Your task to perform on an android device: change the clock display to analog Image 0: 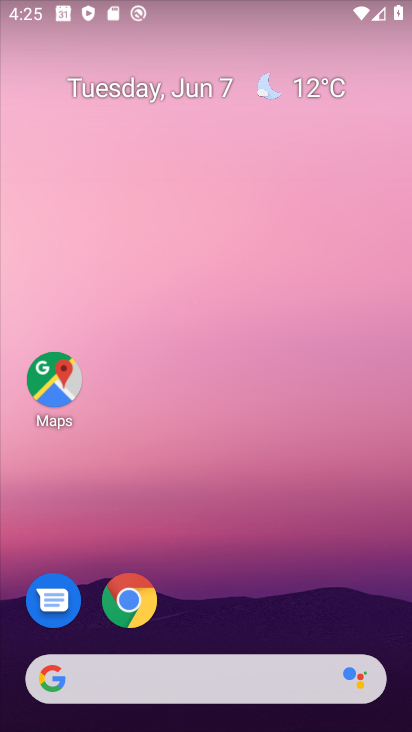
Step 0: drag from (190, 595) to (162, 279)
Your task to perform on an android device: change the clock display to analog Image 1: 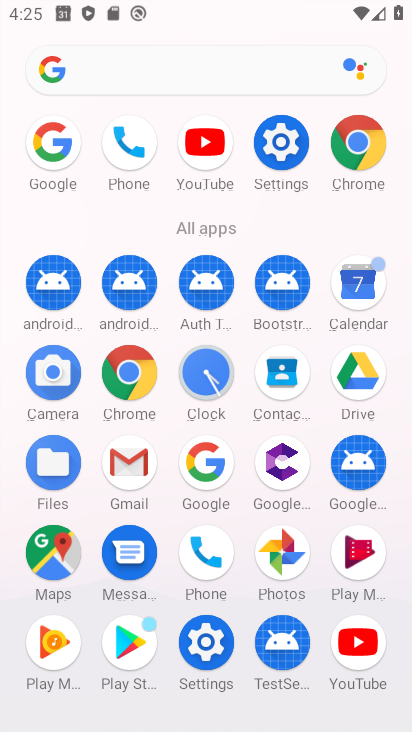
Step 1: click (193, 392)
Your task to perform on an android device: change the clock display to analog Image 2: 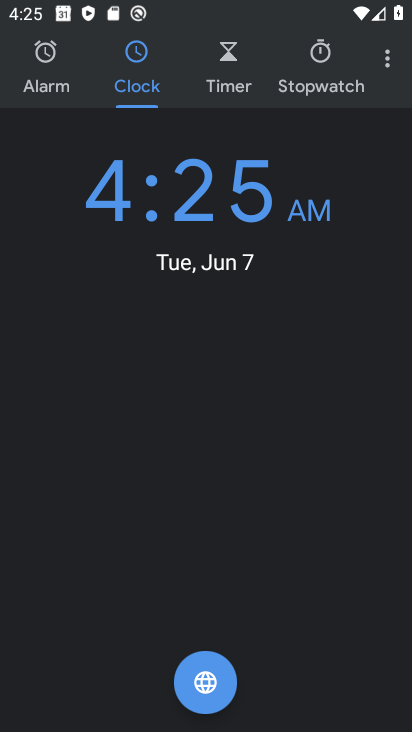
Step 2: click (386, 65)
Your task to perform on an android device: change the clock display to analog Image 3: 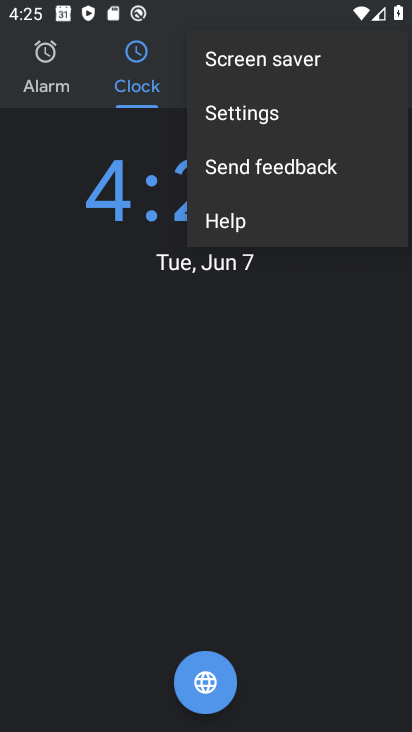
Step 3: click (224, 114)
Your task to perform on an android device: change the clock display to analog Image 4: 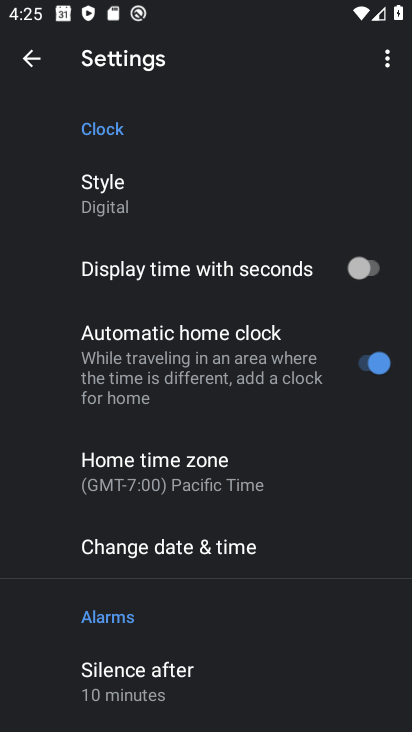
Step 4: click (120, 199)
Your task to perform on an android device: change the clock display to analog Image 5: 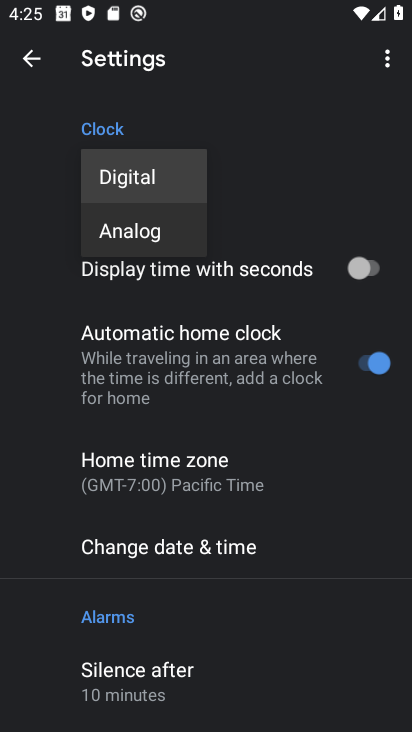
Step 5: click (175, 232)
Your task to perform on an android device: change the clock display to analog Image 6: 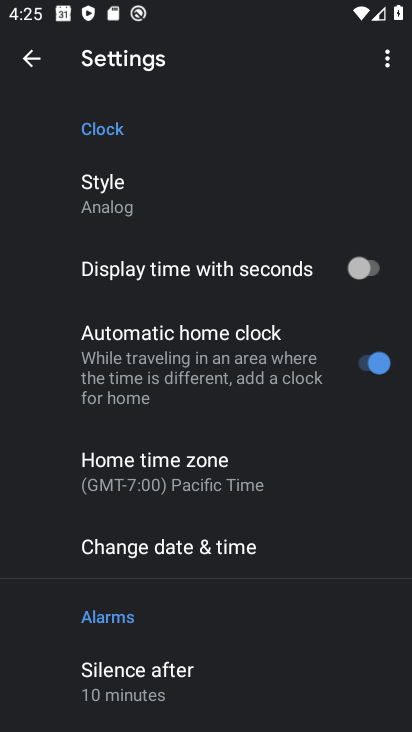
Step 6: task complete